Your task to perform on an android device: change notification settings in the gmail app Image 0: 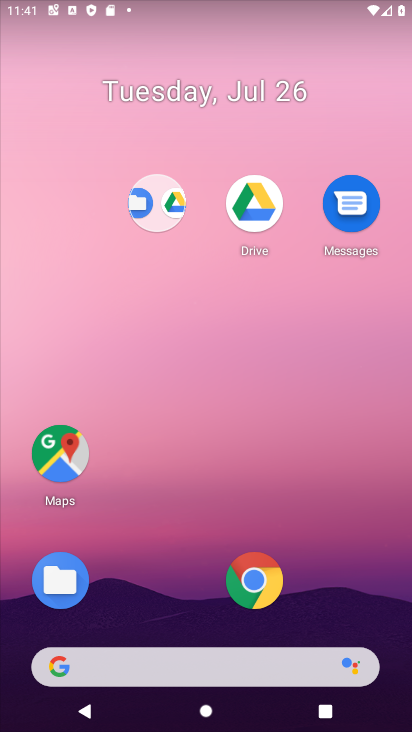
Step 0: drag from (172, 602) to (174, 283)
Your task to perform on an android device: change notification settings in the gmail app Image 1: 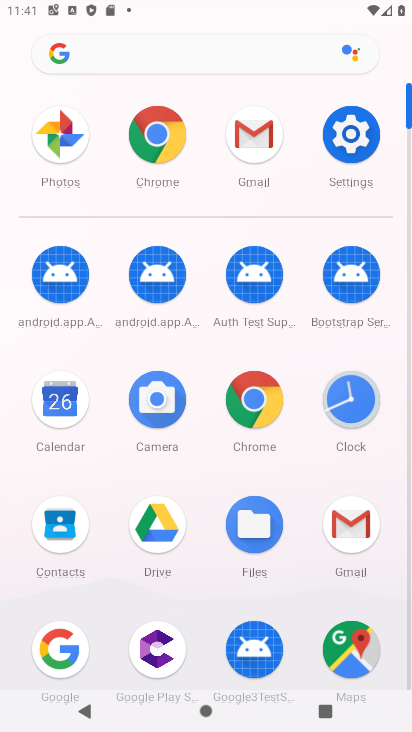
Step 1: click (357, 134)
Your task to perform on an android device: change notification settings in the gmail app Image 2: 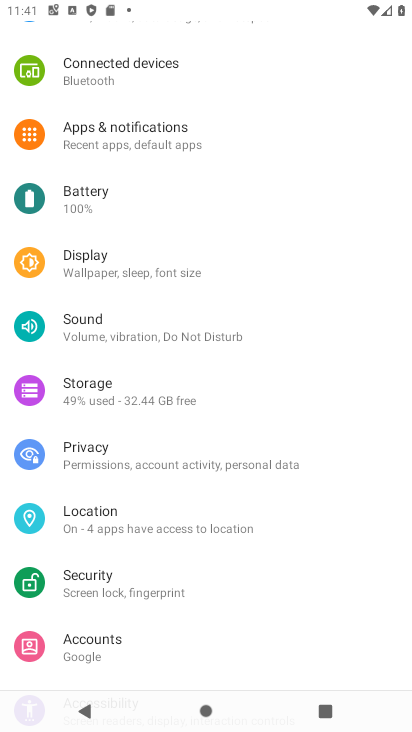
Step 2: click (155, 128)
Your task to perform on an android device: change notification settings in the gmail app Image 3: 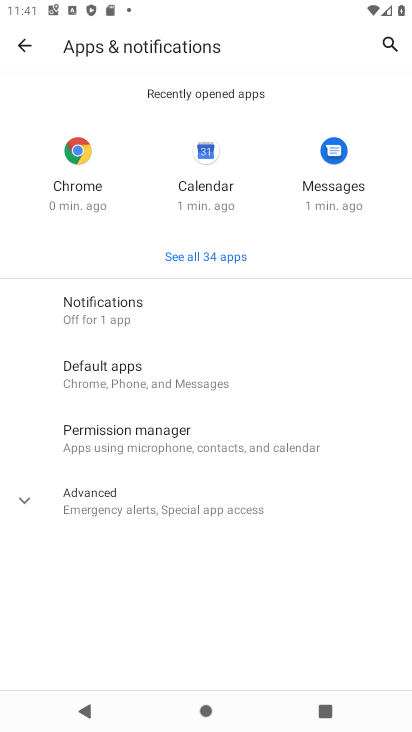
Step 3: click (234, 255)
Your task to perform on an android device: change notification settings in the gmail app Image 4: 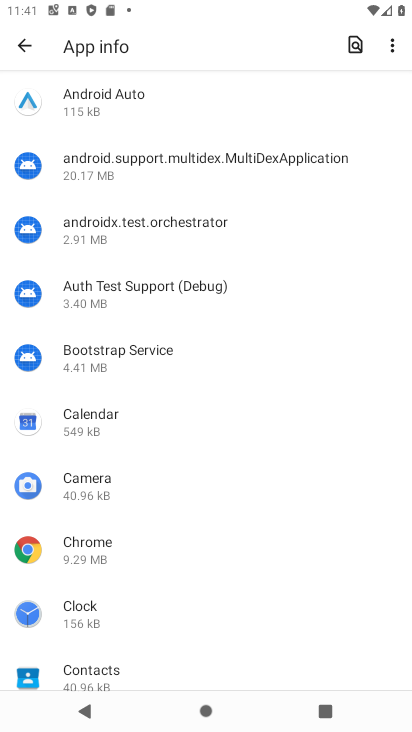
Step 4: drag from (230, 621) to (234, 324)
Your task to perform on an android device: change notification settings in the gmail app Image 5: 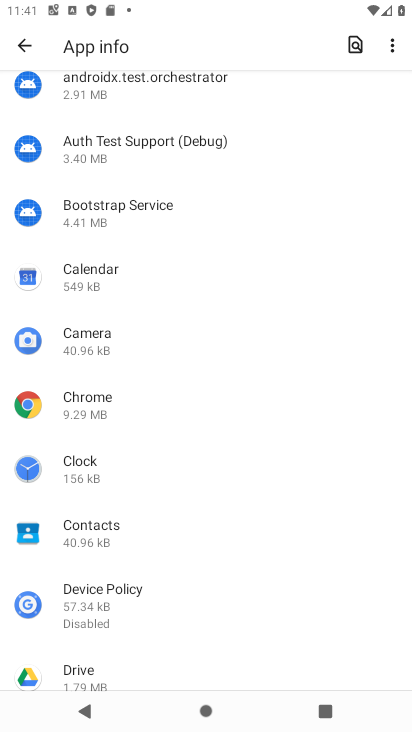
Step 5: drag from (219, 634) to (242, 242)
Your task to perform on an android device: change notification settings in the gmail app Image 6: 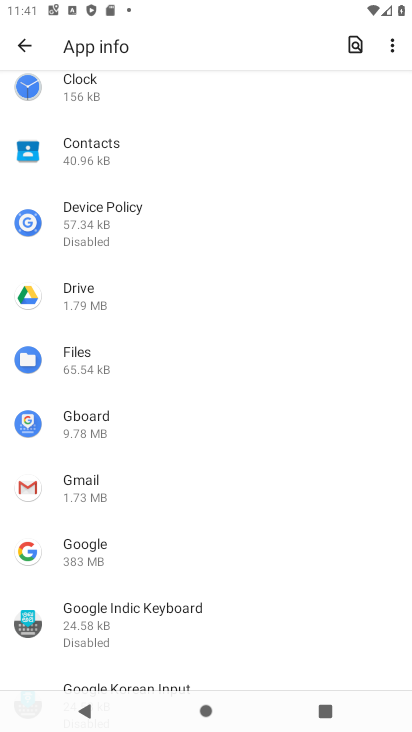
Step 6: click (111, 643)
Your task to perform on an android device: change notification settings in the gmail app Image 7: 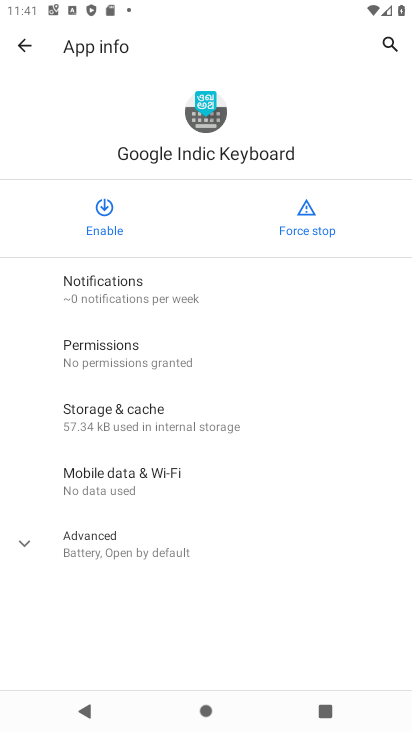
Step 7: click (19, 51)
Your task to perform on an android device: change notification settings in the gmail app Image 8: 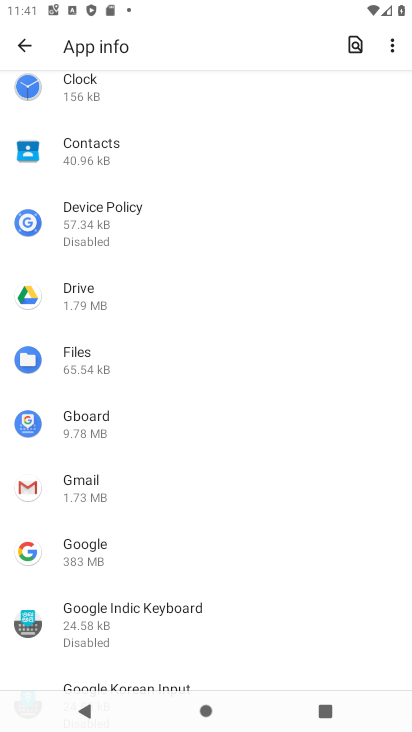
Step 8: click (114, 490)
Your task to perform on an android device: change notification settings in the gmail app Image 9: 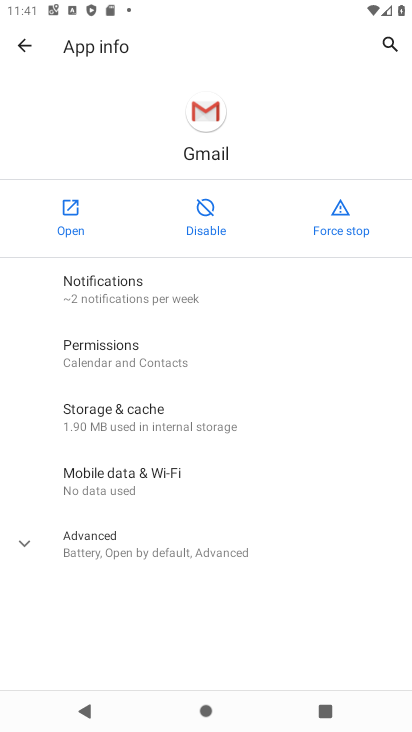
Step 9: click (133, 281)
Your task to perform on an android device: change notification settings in the gmail app Image 10: 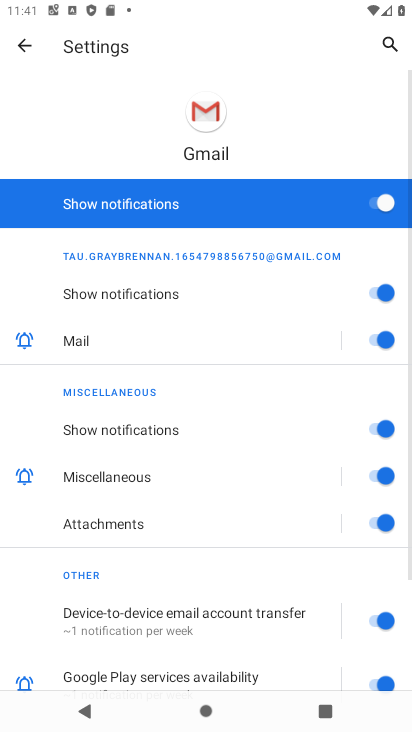
Step 10: click (389, 214)
Your task to perform on an android device: change notification settings in the gmail app Image 11: 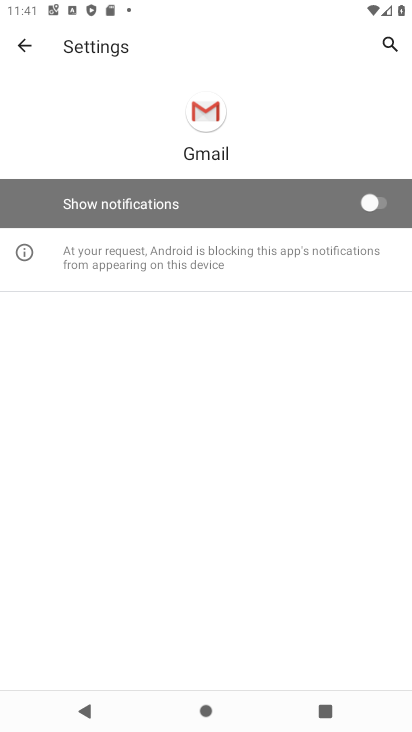
Step 11: task complete